Your task to perform on an android device: Search for Mexican restaurants on Maps Image 0: 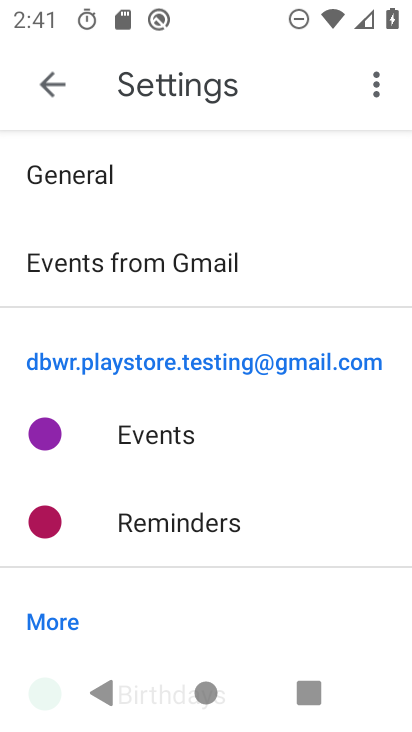
Step 0: press home button
Your task to perform on an android device: Search for Mexican restaurants on Maps Image 1: 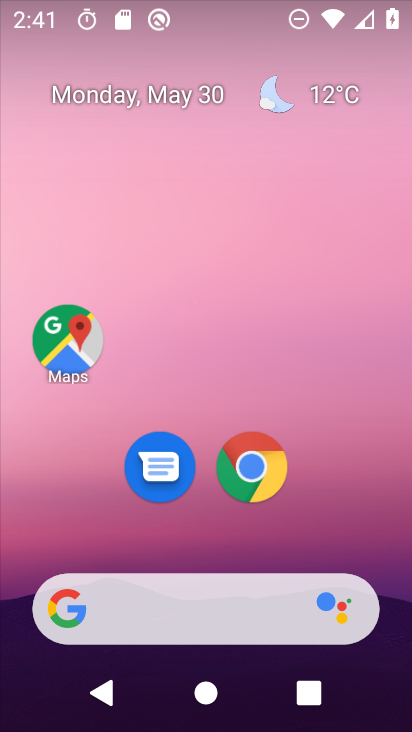
Step 1: click (68, 355)
Your task to perform on an android device: Search for Mexican restaurants on Maps Image 2: 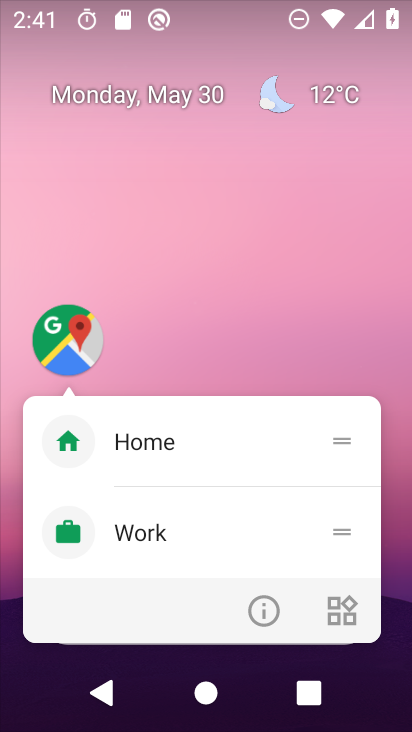
Step 2: click (68, 356)
Your task to perform on an android device: Search for Mexican restaurants on Maps Image 3: 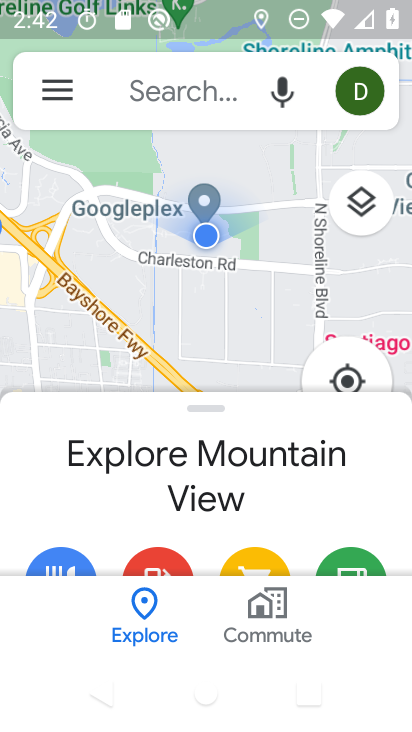
Step 3: click (216, 96)
Your task to perform on an android device: Search for Mexican restaurants on Maps Image 4: 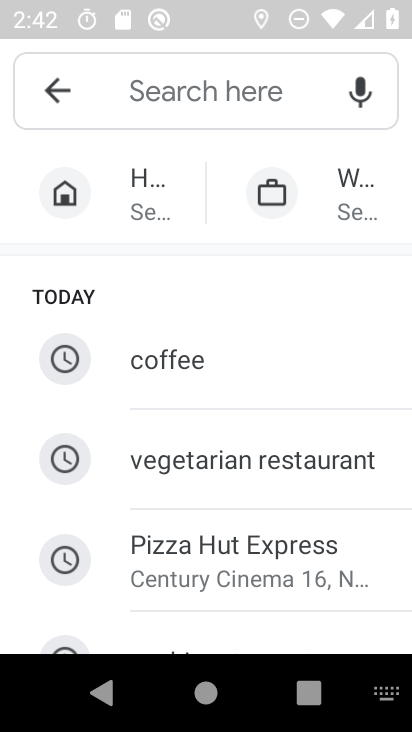
Step 4: type "Mexican restaurants"
Your task to perform on an android device: Search for Mexican restaurants on Maps Image 5: 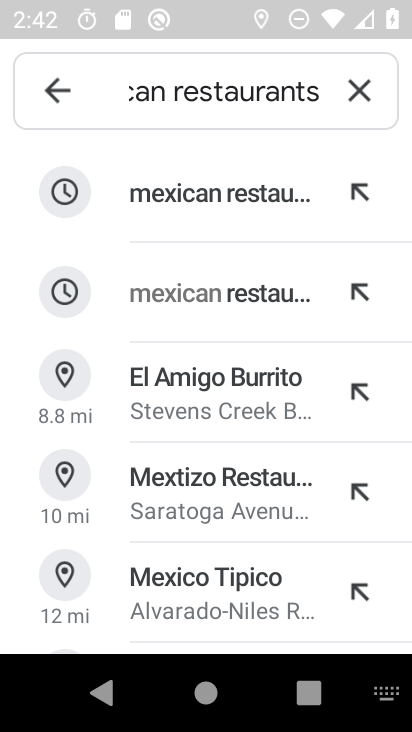
Step 5: click (208, 195)
Your task to perform on an android device: Search for Mexican restaurants on Maps Image 6: 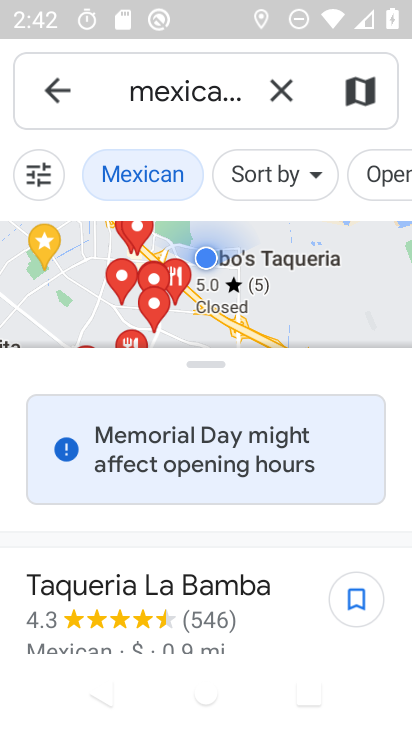
Step 6: task complete